Your task to perform on an android device: turn off javascript in the chrome app Image 0: 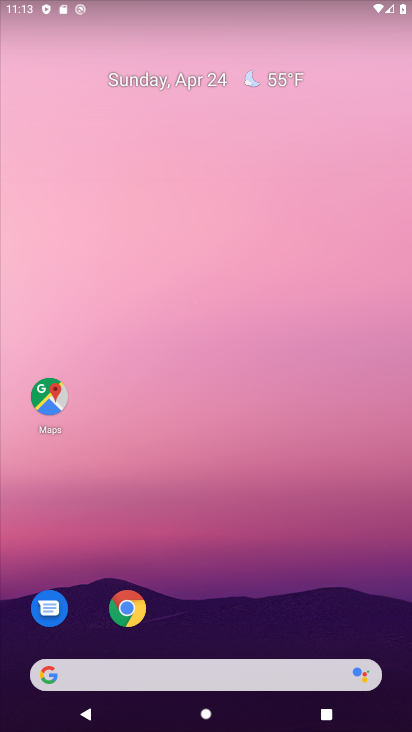
Step 0: click (130, 610)
Your task to perform on an android device: turn off javascript in the chrome app Image 1: 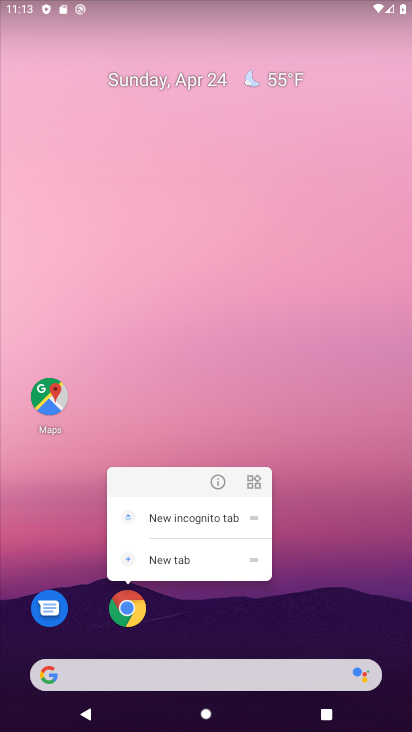
Step 1: click (130, 609)
Your task to perform on an android device: turn off javascript in the chrome app Image 2: 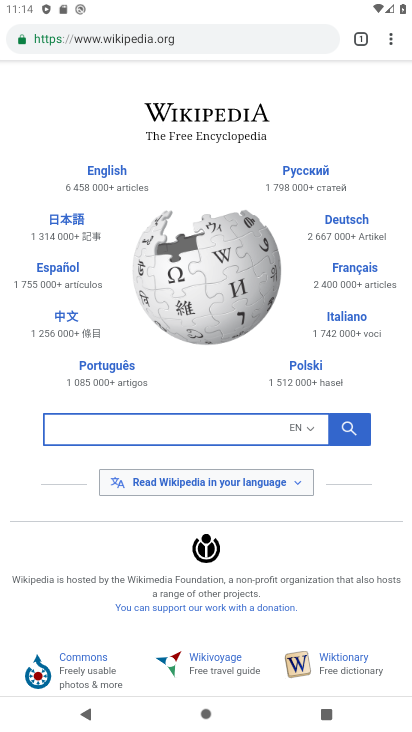
Step 2: click (400, 42)
Your task to perform on an android device: turn off javascript in the chrome app Image 3: 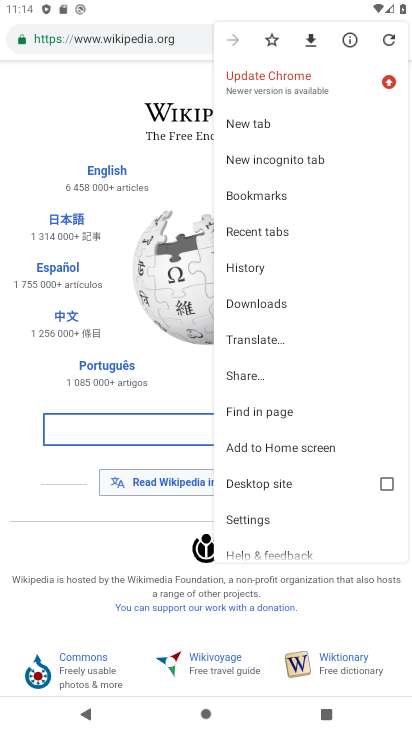
Step 3: click (265, 524)
Your task to perform on an android device: turn off javascript in the chrome app Image 4: 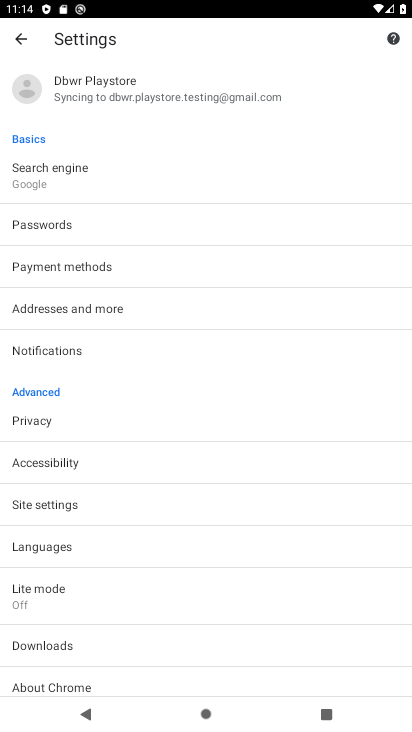
Step 4: click (58, 494)
Your task to perform on an android device: turn off javascript in the chrome app Image 5: 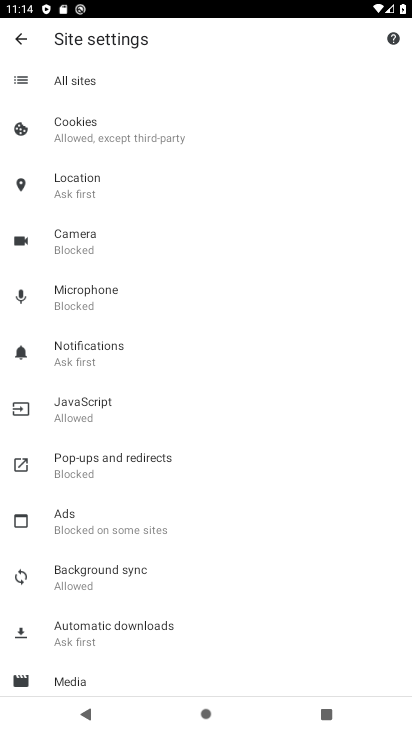
Step 5: click (108, 412)
Your task to perform on an android device: turn off javascript in the chrome app Image 6: 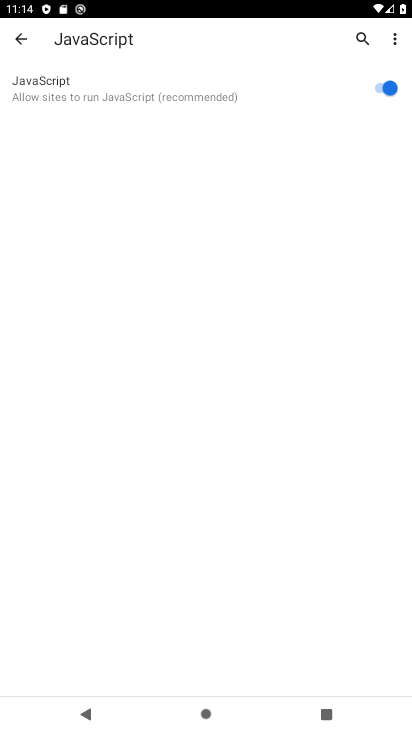
Step 6: click (376, 91)
Your task to perform on an android device: turn off javascript in the chrome app Image 7: 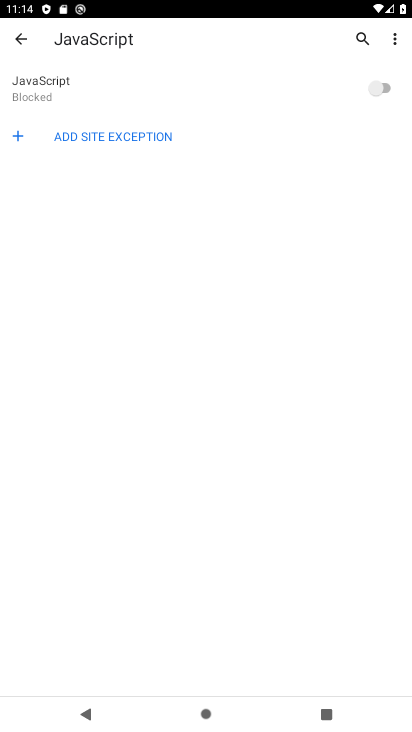
Step 7: task complete